Your task to perform on an android device: Go to settings Image 0: 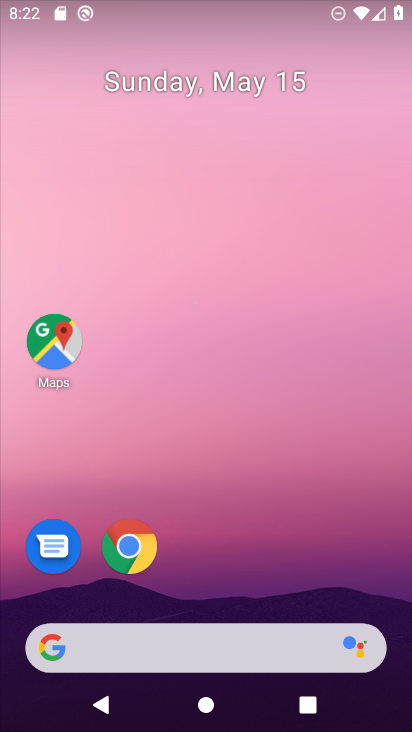
Step 0: drag from (279, 539) to (207, 19)
Your task to perform on an android device: Go to settings Image 1: 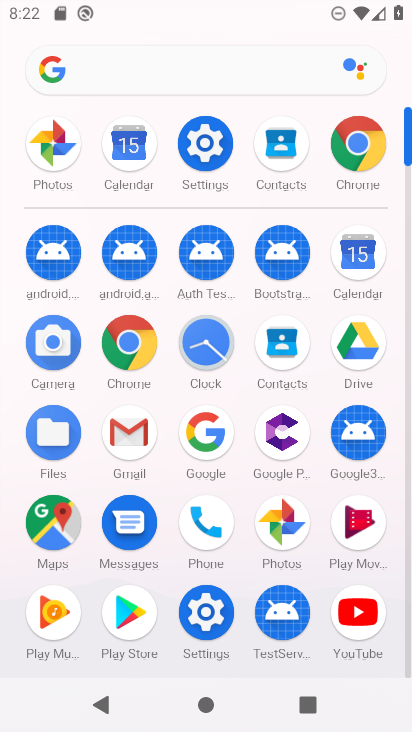
Step 1: click (205, 134)
Your task to perform on an android device: Go to settings Image 2: 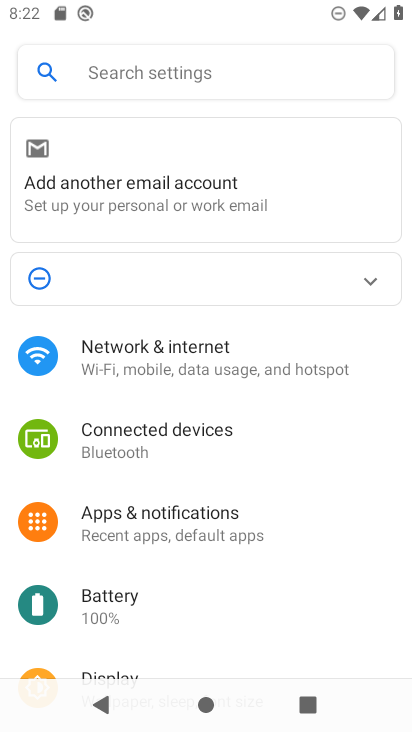
Step 2: task complete